Your task to perform on an android device: What is the news today? Image 0: 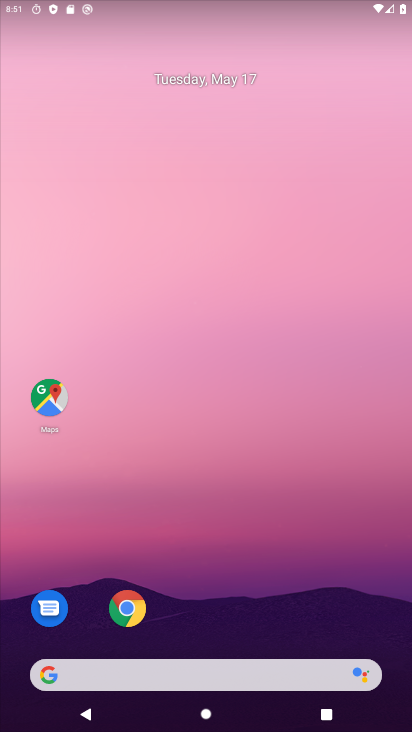
Step 0: drag from (269, 600) to (290, 88)
Your task to perform on an android device: What is the news today? Image 1: 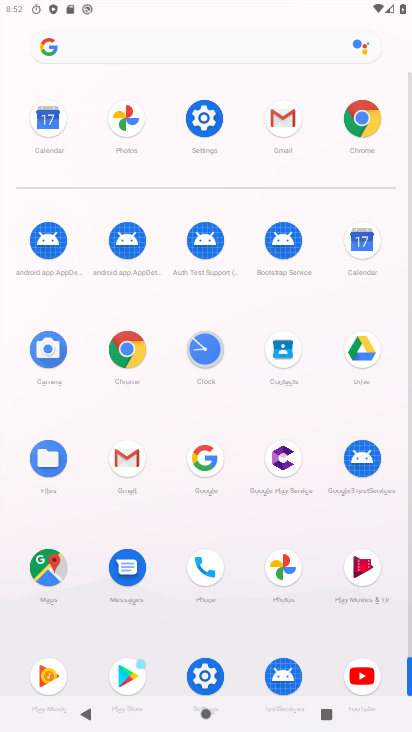
Step 1: click (117, 354)
Your task to perform on an android device: What is the news today? Image 2: 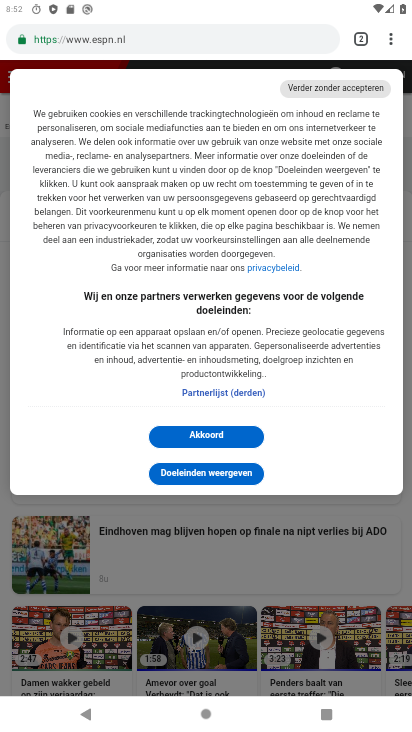
Step 2: click (161, 44)
Your task to perform on an android device: What is the news today? Image 3: 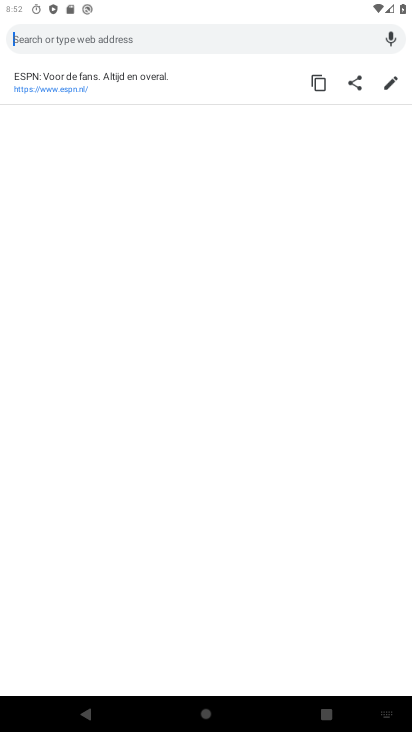
Step 3: type "what is the news today"
Your task to perform on an android device: What is the news today? Image 4: 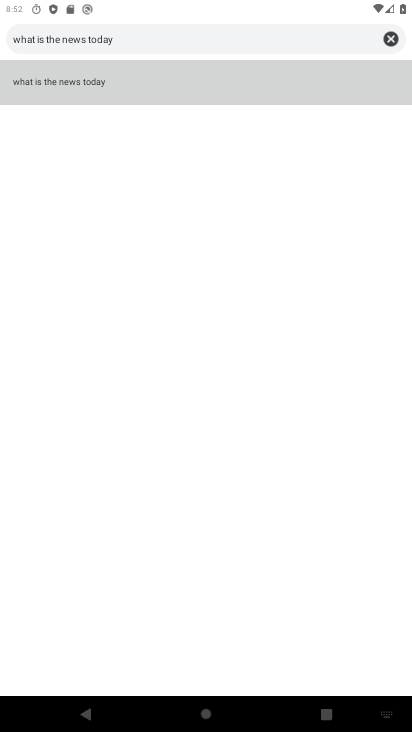
Step 4: click (116, 87)
Your task to perform on an android device: What is the news today? Image 5: 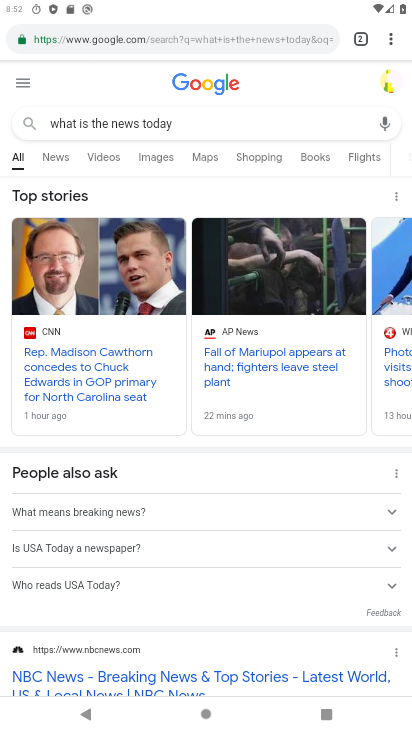
Step 5: task complete